Your task to perform on an android device: Open calendar and show me the fourth week of next month Image 0: 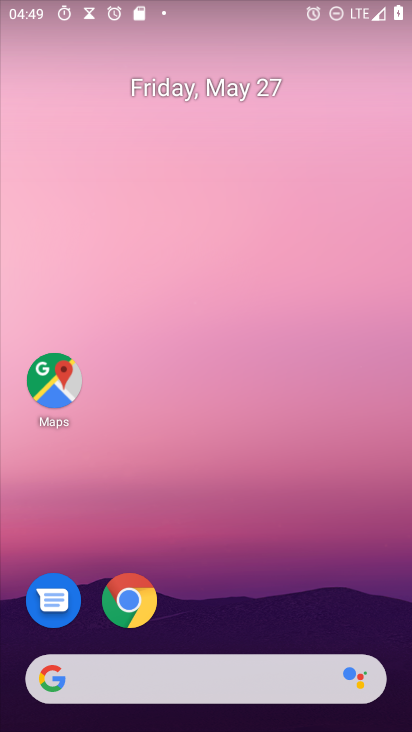
Step 0: drag from (232, 722) to (232, 119)
Your task to perform on an android device: Open calendar and show me the fourth week of next month Image 1: 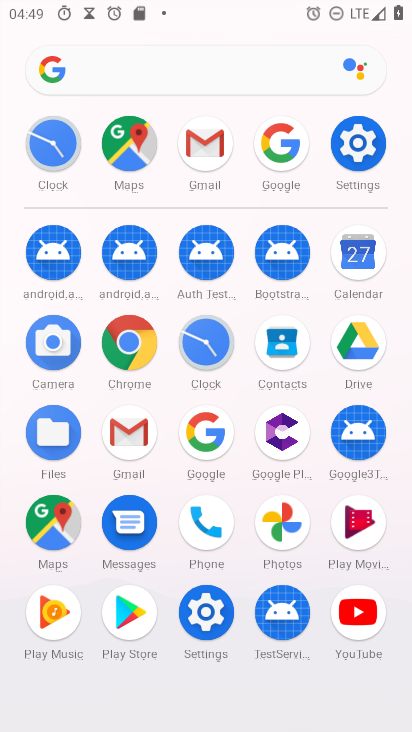
Step 1: click (358, 257)
Your task to perform on an android device: Open calendar and show me the fourth week of next month Image 2: 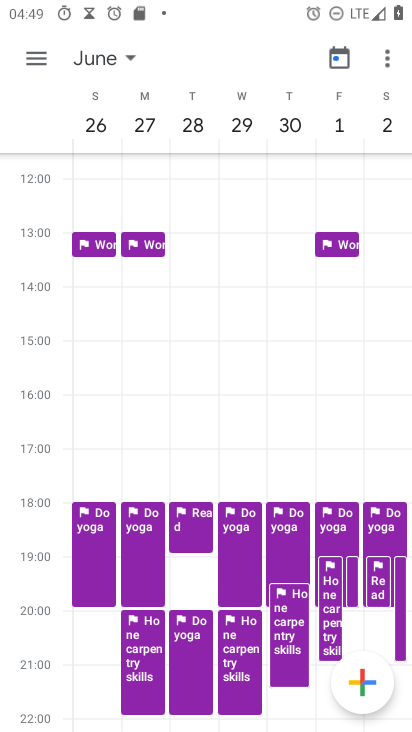
Step 2: click (132, 58)
Your task to perform on an android device: Open calendar and show me the fourth week of next month Image 3: 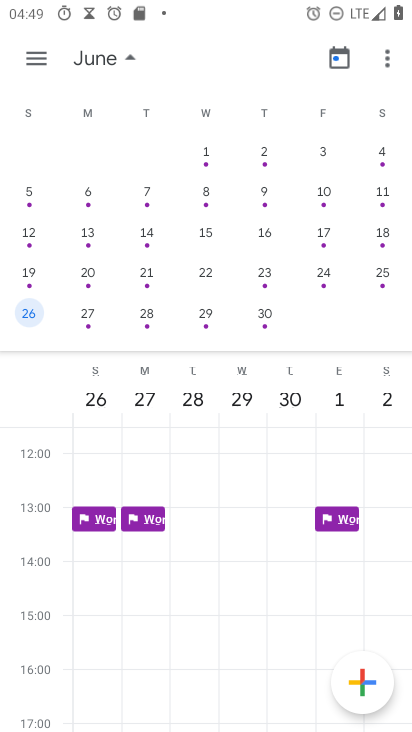
Step 3: click (88, 308)
Your task to perform on an android device: Open calendar and show me the fourth week of next month Image 4: 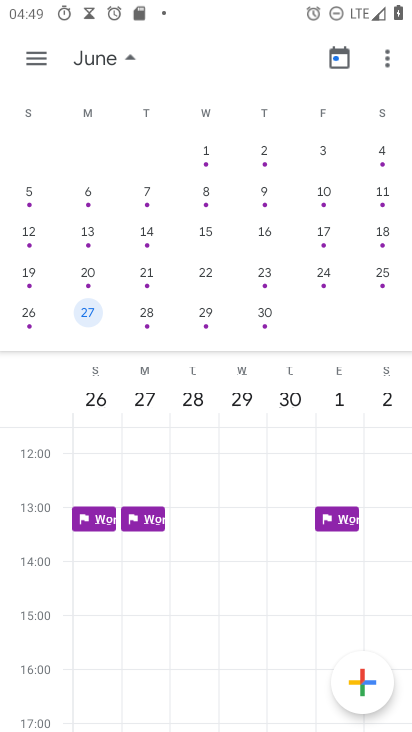
Step 4: click (37, 56)
Your task to perform on an android device: Open calendar and show me the fourth week of next month Image 5: 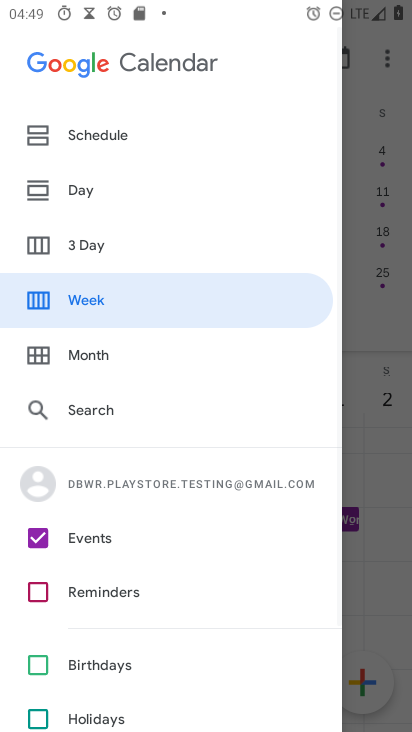
Step 5: click (83, 305)
Your task to perform on an android device: Open calendar and show me the fourth week of next month Image 6: 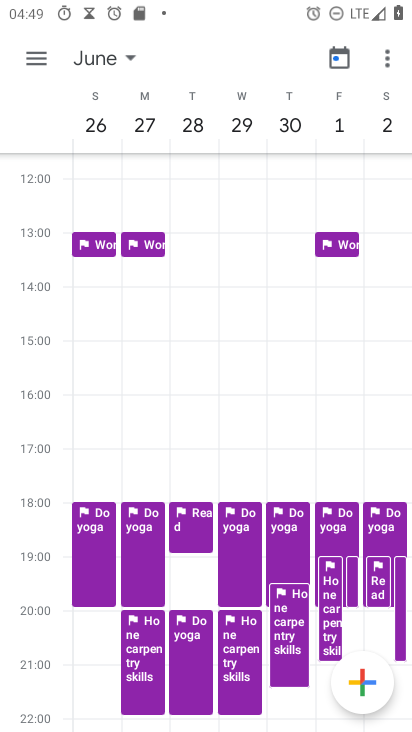
Step 6: task complete